Your task to perform on an android device: Set the phone to "Do not disturb". Image 0: 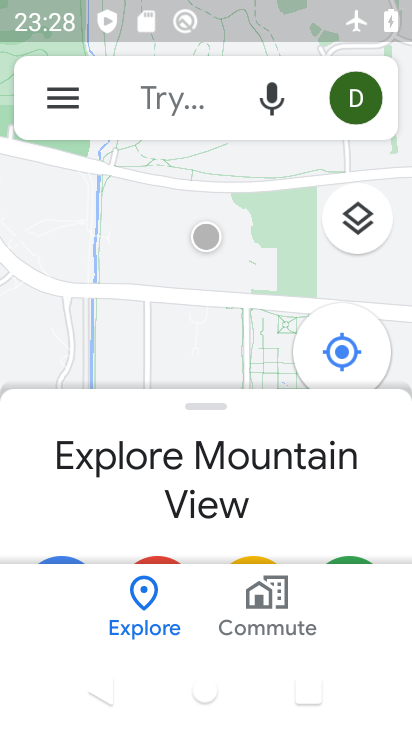
Step 0: press home button
Your task to perform on an android device: Set the phone to "Do not disturb". Image 1: 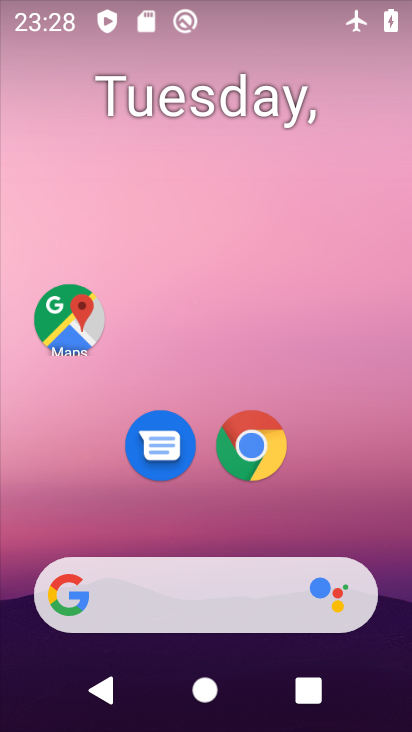
Step 1: drag from (259, 543) to (242, 0)
Your task to perform on an android device: Set the phone to "Do not disturb". Image 2: 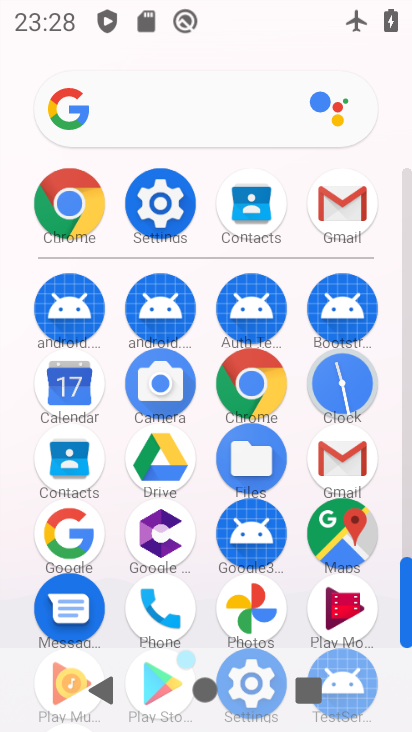
Step 2: click (168, 215)
Your task to perform on an android device: Set the phone to "Do not disturb". Image 3: 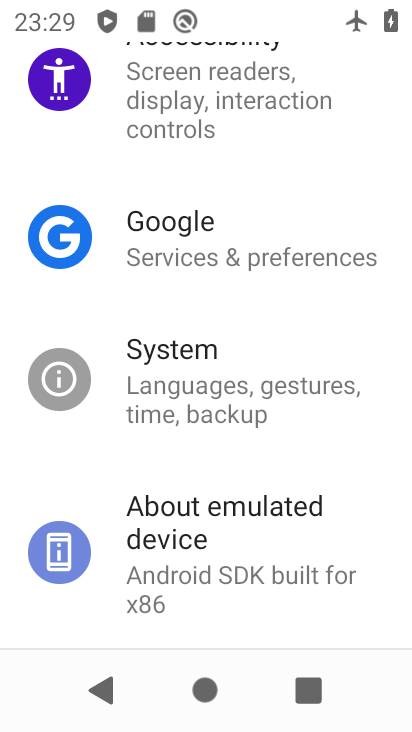
Step 3: drag from (224, 318) to (205, 554)
Your task to perform on an android device: Set the phone to "Do not disturb". Image 4: 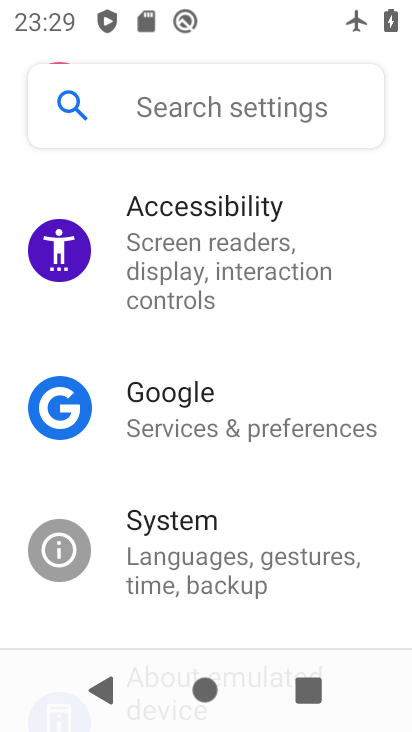
Step 4: drag from (209, 350) to (250, 635)
Your task to perform on an android device: Set the phone to "Do not disturb". Image 5: 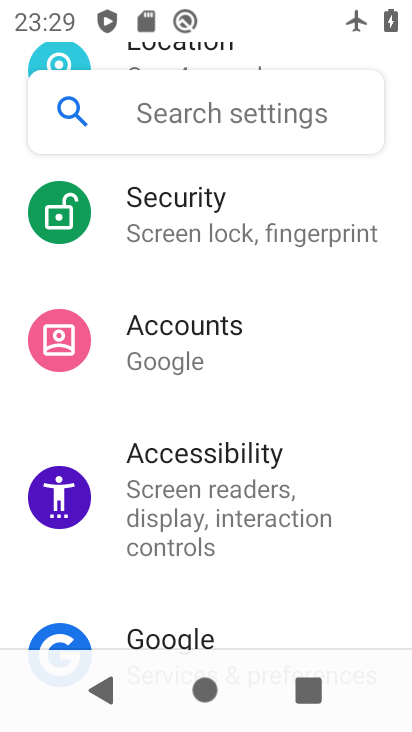
Step 5: drag from (294, 367) to (303, 595)
Your task to perform on an android device: Set the phone to "Do not disturb". Image 6: 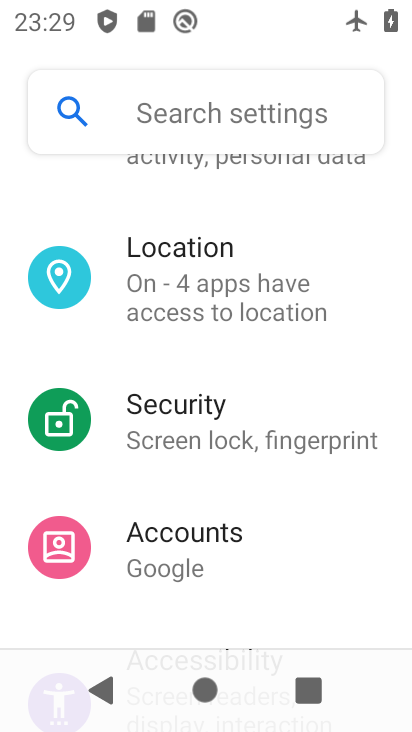
Step 6: drag from (325, 399) to (335, 542)
Your task to perform on an android device: Set the phone to "Do not disturb". Image 7: 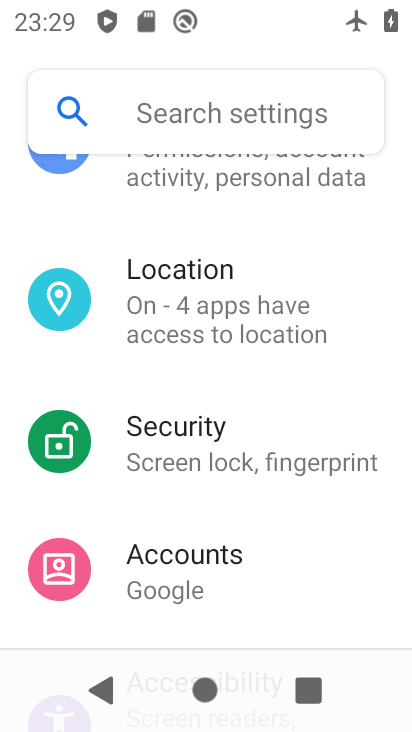
Step 7: drag from (311, 306) to (259, 504)
Your task to perform on an android device: Set the phone to "Do not disturb". Image 8: 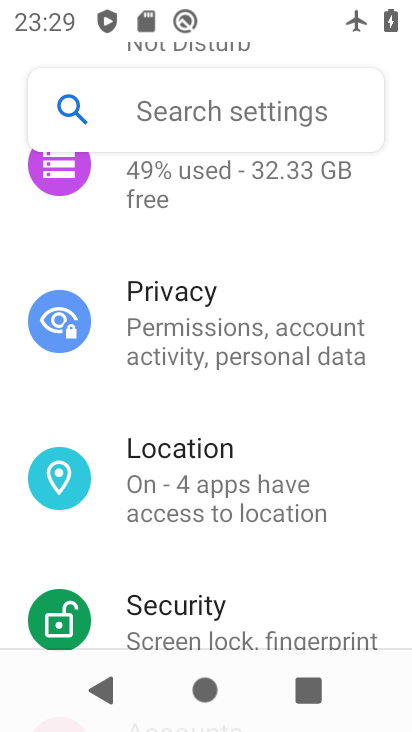
Step 8: drag from (234, 312) to (210, 444)
Your task to perform on an android device: Set the phone to "Do not disturb". Image 9: 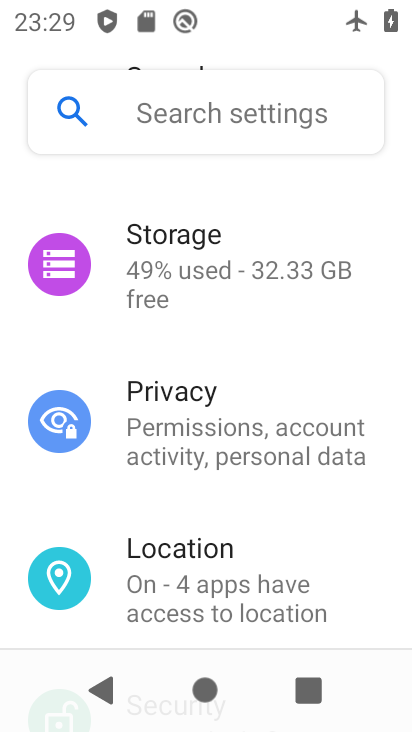
Step 9: drag from (189, 303) to (181, 545)
Your task to perform on an android device: Set the phone to "Do not disturb". Image 10: 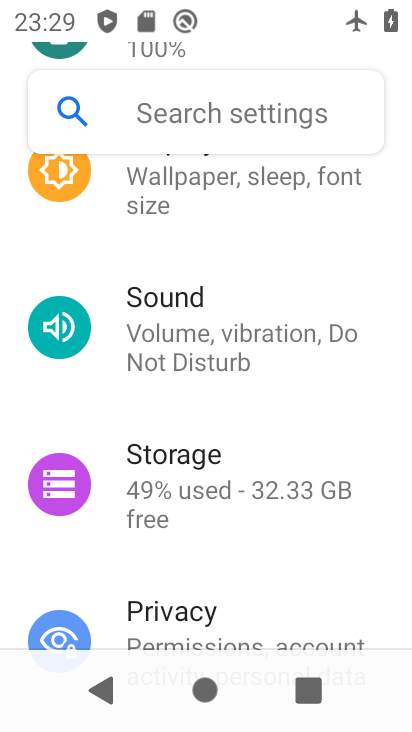
Step 10: click (207, 329)
Your task to perform on an android device: Set the phone to "Do not disturb". Image 11: 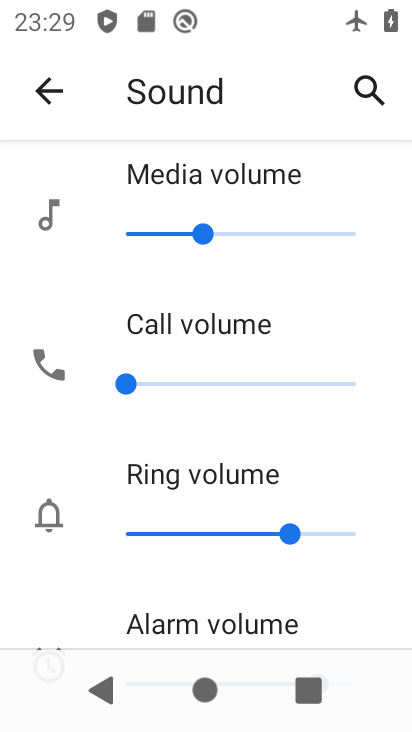
Step 11: drag from (225, 631) to (245, 206)
Your task to perform on an android device: Set the phone to "Do not disturb". Image 12: 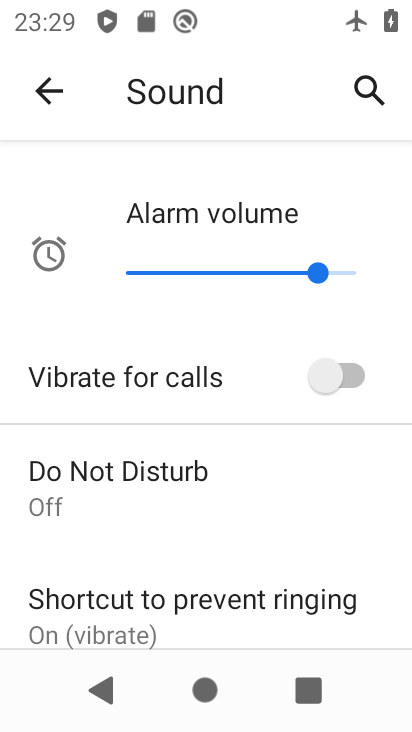
Step 12: click (142, 477)
Your task to perform on an android device: Set the phone to "Do not disturb". Image 13: 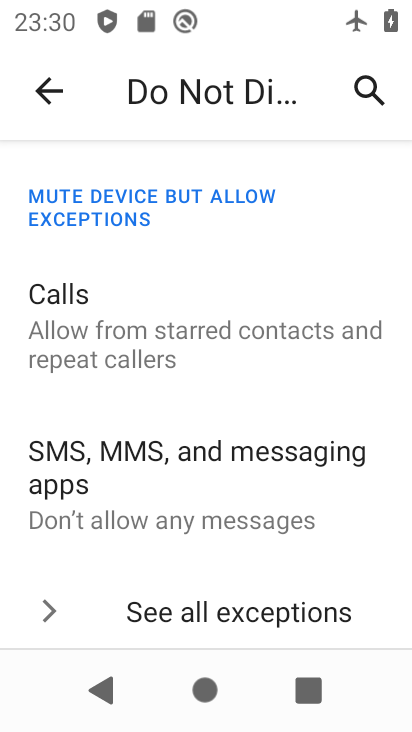
Step 13: drag from (231, 553) to (285, 298)
Your task to perform on an android device: Set the phone to "Do not disturb". Image 14: 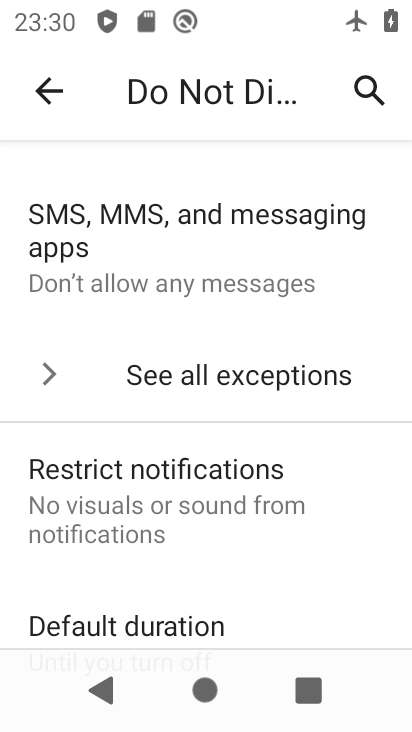
Step 14: drag from (262, 527) to (298, 180)
Your task to perform on an android device: Set the phone to "Do not disturb". Image 15: 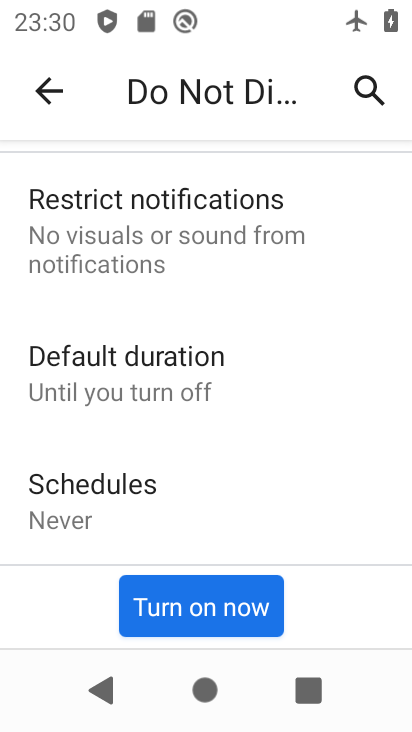
Step 15: drag from (331, 549) to (334, 349)
Your task to perform on an android device: Set the phone to "Do not disturb". Image 16: 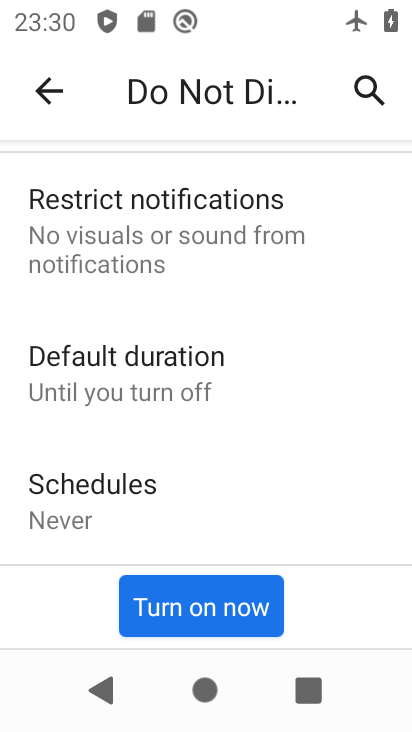
Step 16: click (200, 599)
Your task to perform on an android device: Set the phone to "Do not disturb". Image 17: 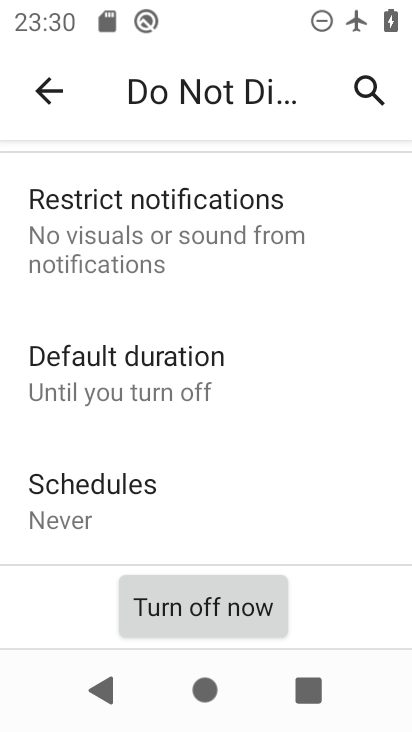
Step 17: task complete